Your task to perform on an android device: Open CNN.com Image 0: 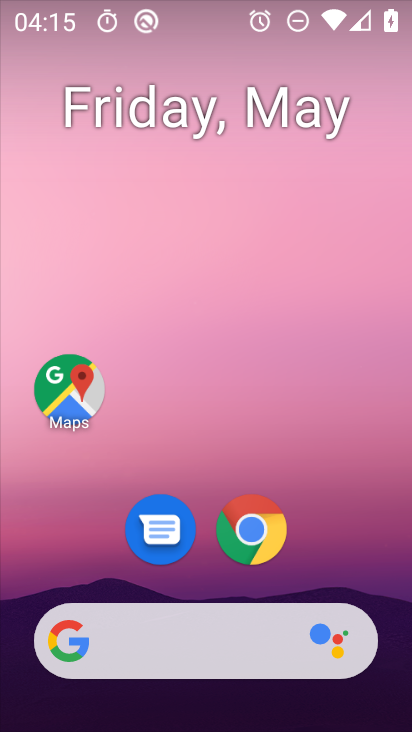
Step 0: click (242, 523)
Your task to perform on an android device: Open CNN.com Image 1: 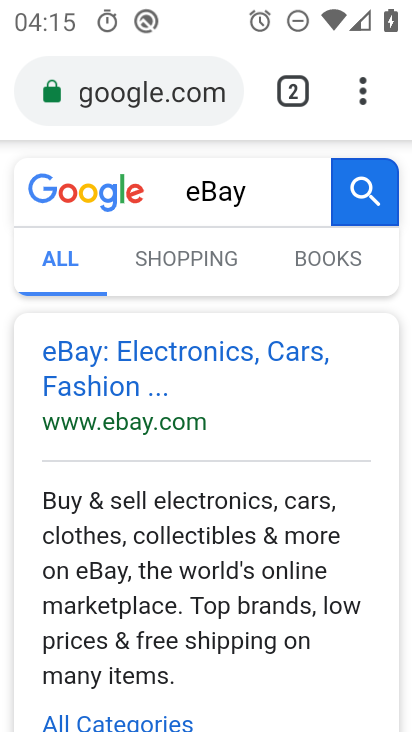
Step 1: click (231, 94)
Your task to perform on an android device: Open CNN.com Image 2: 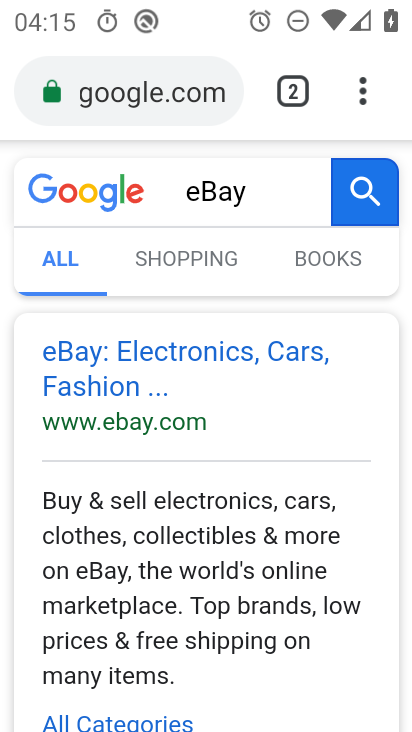
Step 2: click (228, 90)
Your task to perform on an android device: Open CNN.com Image 3: 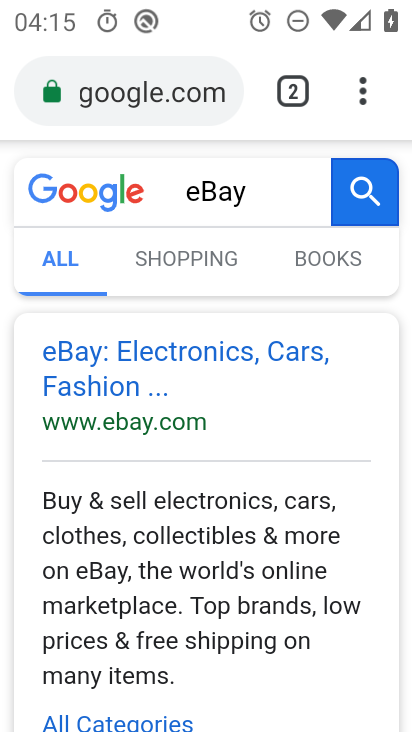
Step 3: click (224, 96)
Your task to perform on an android device: Open CNN.com Image 4: 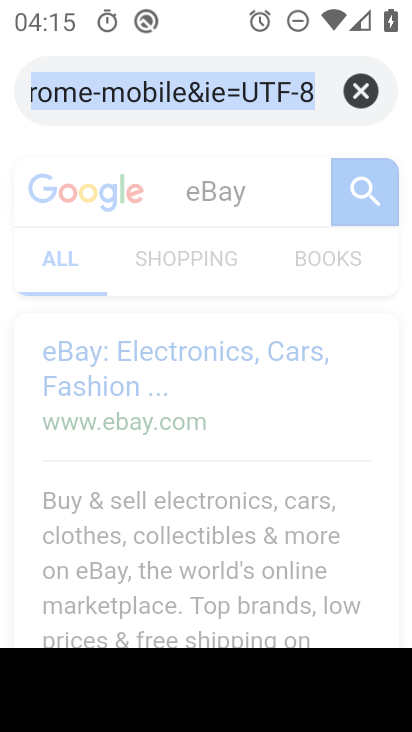
Step 4: click (363, 91)
Your task to perform on an android device: Open CNN.com Image 5: 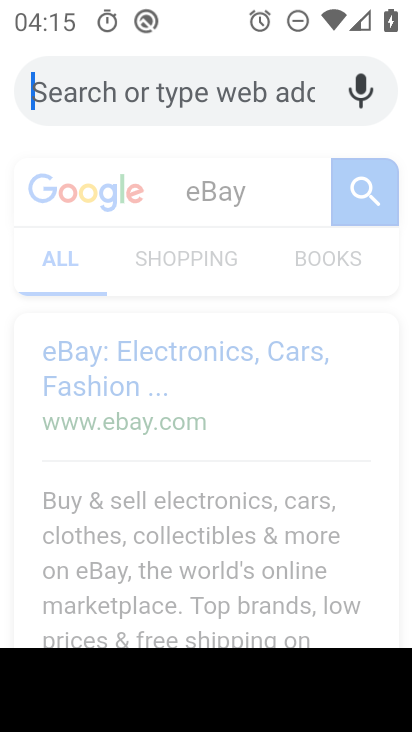
Step 5: type " CNN.com"
Your task to perform on an android device: Open CNN.com Image 6: 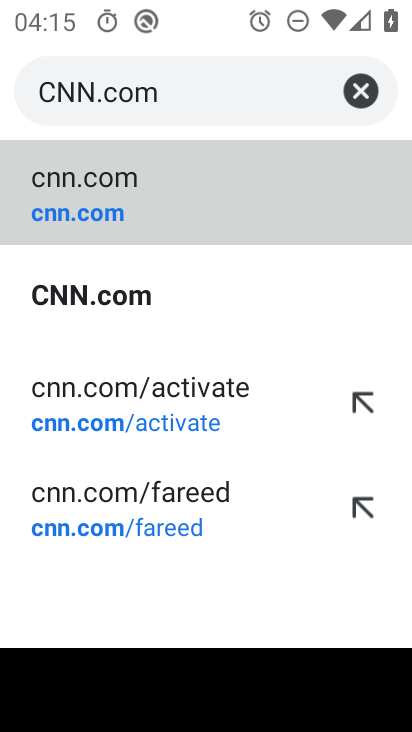
Step 6: click (87, 293)
Your task to perform on an android device: Open CNN.com Image 7: 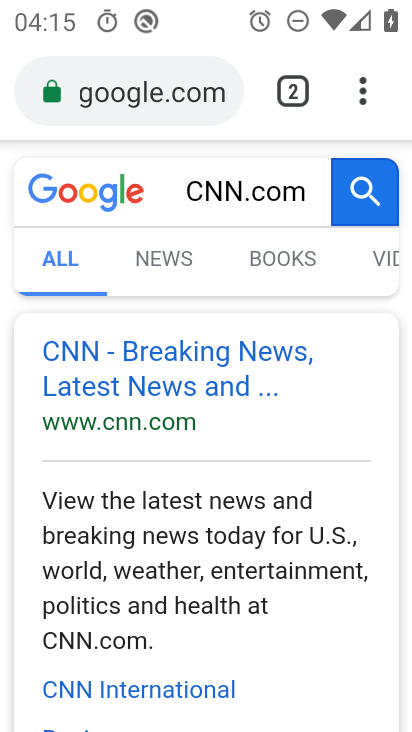
Step 7: task complete